Your task to perform on an android device: stop showing notifications on the lock screen Image 0: 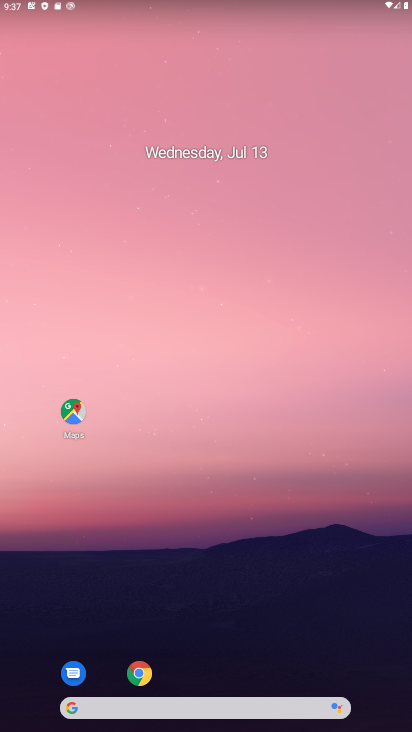
Step 0: drag from (198, 687) to (198, 82)
Your task to perform on an android device: stop showing notifications on the lock screen Image 1: 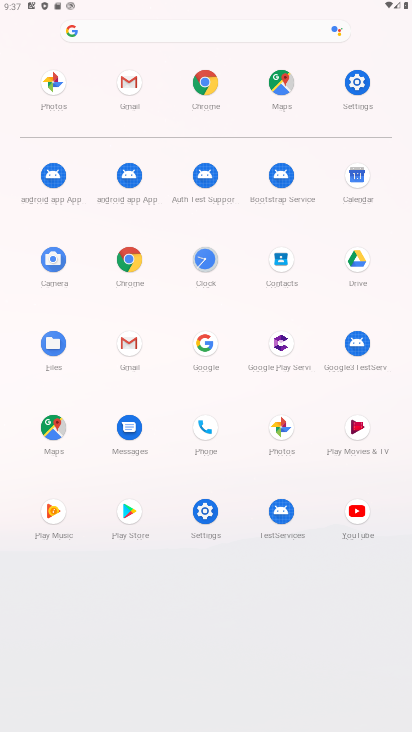
Step 1: click (357, 90)
Your task to perform on an android device: stop showing notifications on the lock screen Image 2: 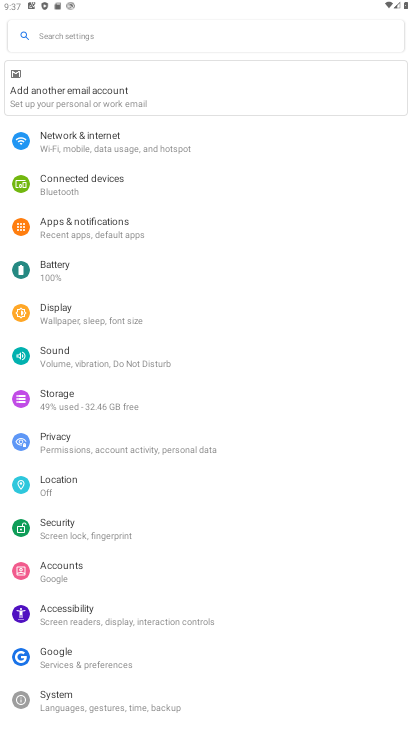
Step 2: click (94, 244)
Your task to perform on an android device: stop showing notifications on the lock screen Image 3: 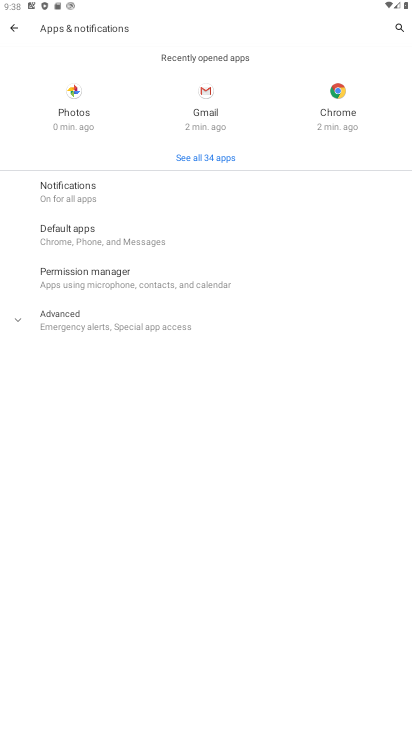
Step 3: click (92, 196)
Your task to perform on an android device: stop showing notifications on the lock screen Image 4: 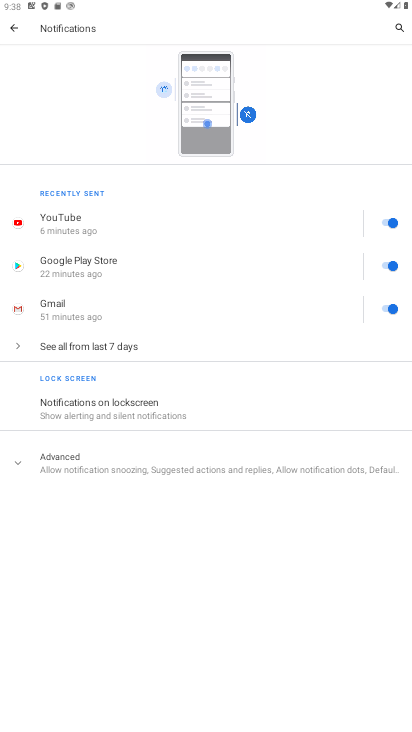
Step 4: click (159, 409)
Your task to perform on an android device: stop showing notifications on the lock screen Image 5: 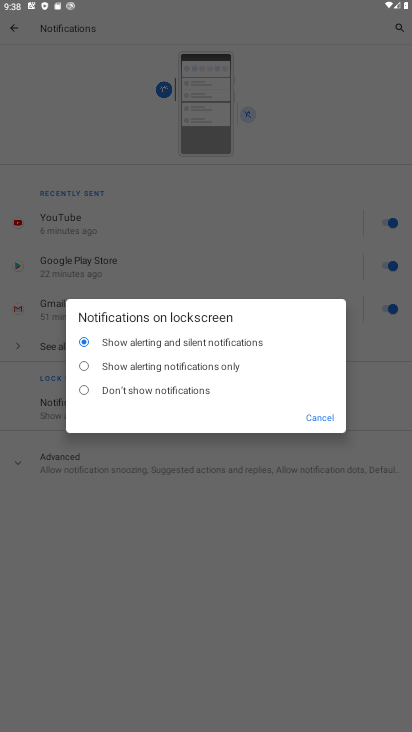
Step 5: click (157, 394)
Your task to perform on an android device: stop showing notifications on the lock screen Image 6: 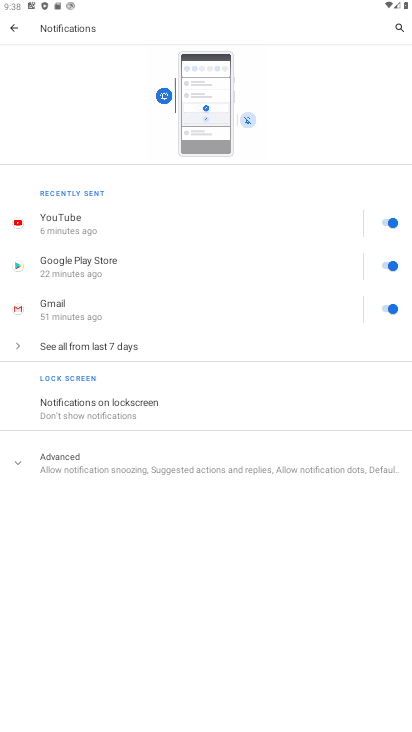
Step 6: task complete